Your task to perform on an android device: Open CNN.com Image 0: 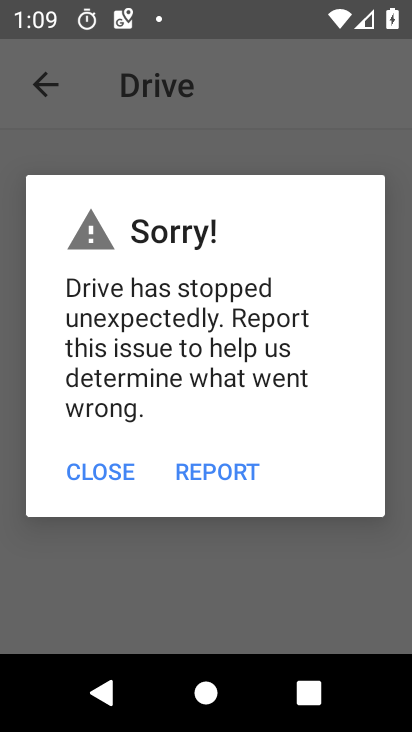
Step 0: press home button
Your task to perform on an android device: Open CNN.com Image 1: 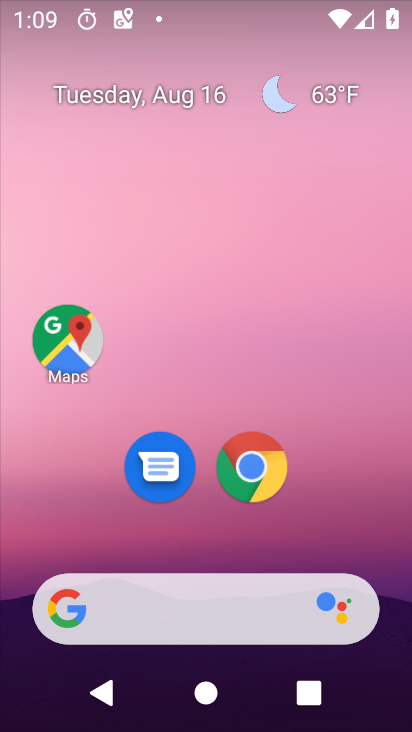
Step 1: drag from (370, 540) to (384, 93)
Your task to perform on an android device: Open CNN.com Image 2: 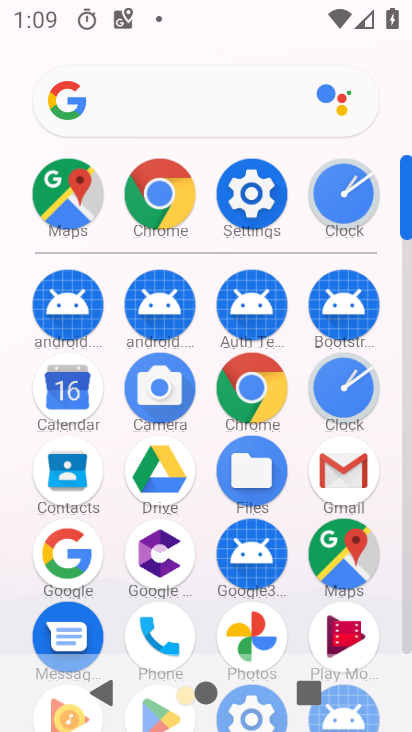
Step 2: click (261, 392)
Your task to perform on an android device: Open CNN.com Image 3: 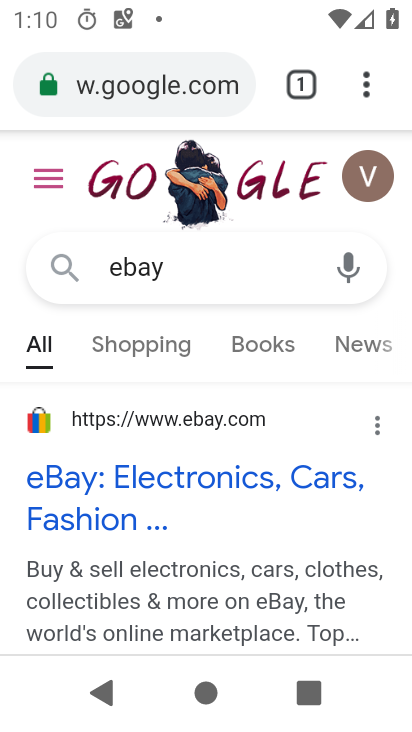
Step 3: click (203, 84)
Your task to perform on an android device: Open CNN.com Image 4: 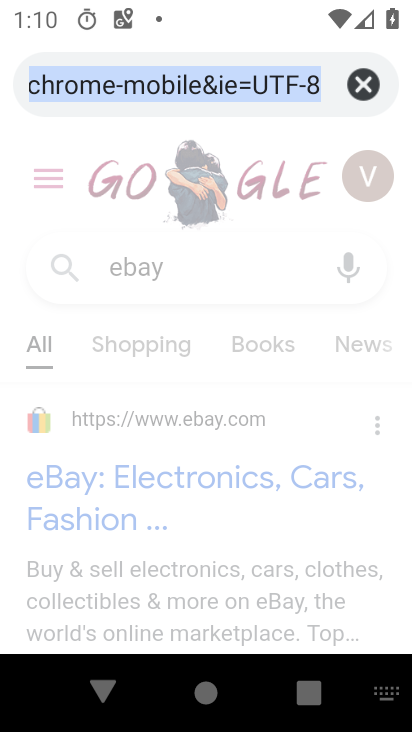
Step 4: type "cnn.com"
Your task to perform on an android device: Open CNN.com Image 5: 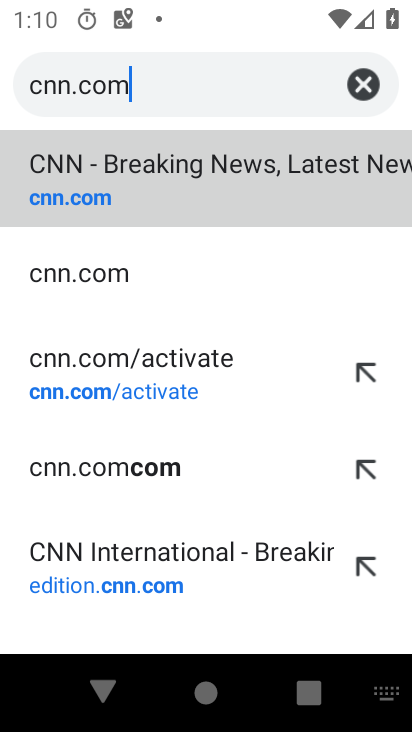
Step 5: click (215, 181)
Your task to perform on an android device: Open CNN.com Image 6: 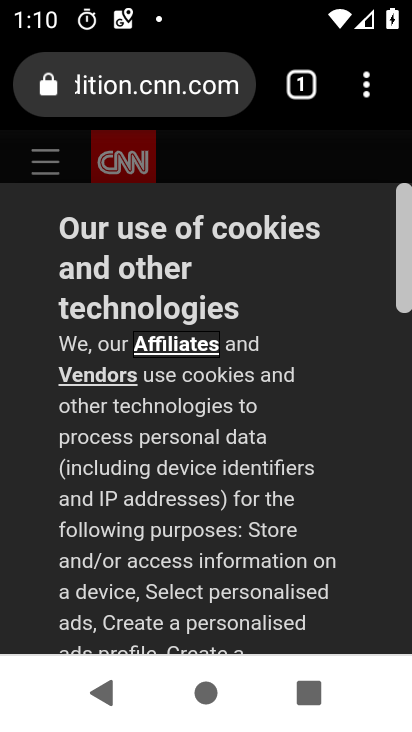
Step 6: task complete